Your task to perform on an android device: Play the last video I watched on Youtube Image 0: 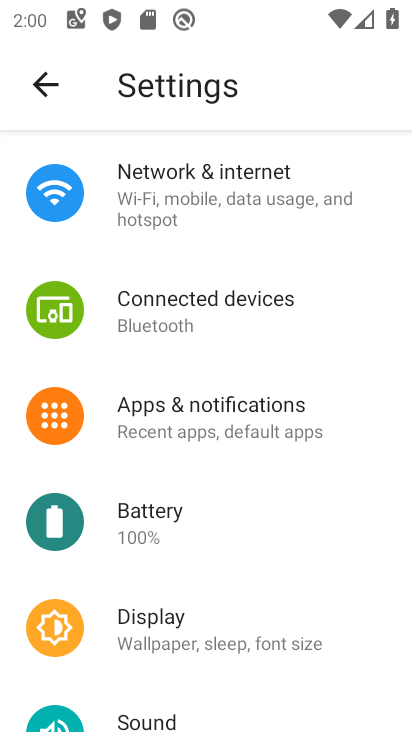
Step 0: press home button
Your task to perform on an android device: Play the last video I watched on Youtube Image 1: 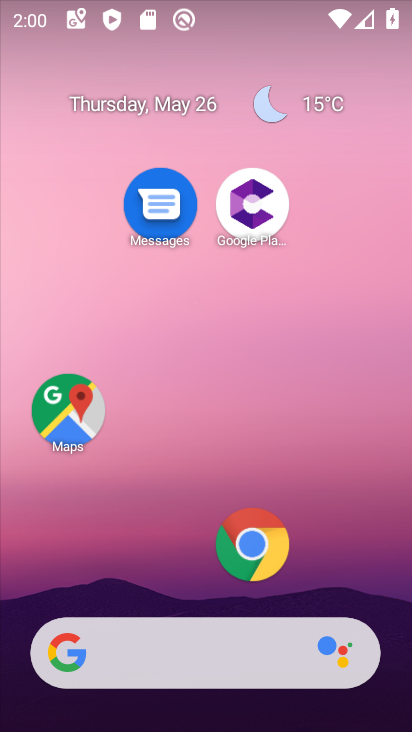
Step 1: drag from (153, 574) to (240, 38)
Your task to perform on an android device: Play the last video I watched on Youtube Image 2: 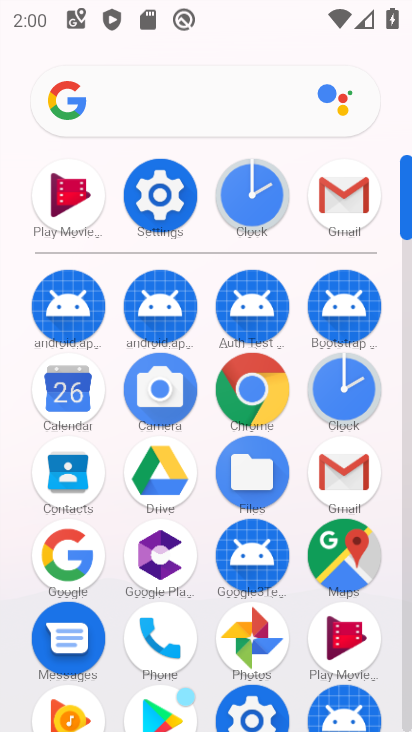
Step 2: drag from (208, 667) to (264, 252)
Your task to perform on an android device: Play the last video I watched on Youtube Image 3: 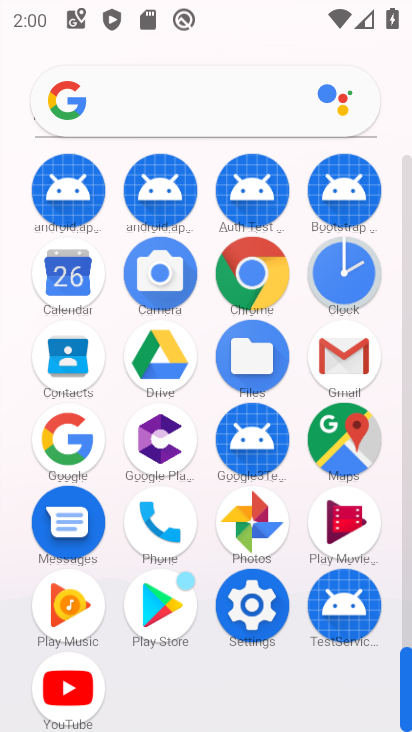
Step 3: click (60, 701)
Your task to perform on an android device: Play the last video I watched on Youtube Image 4: 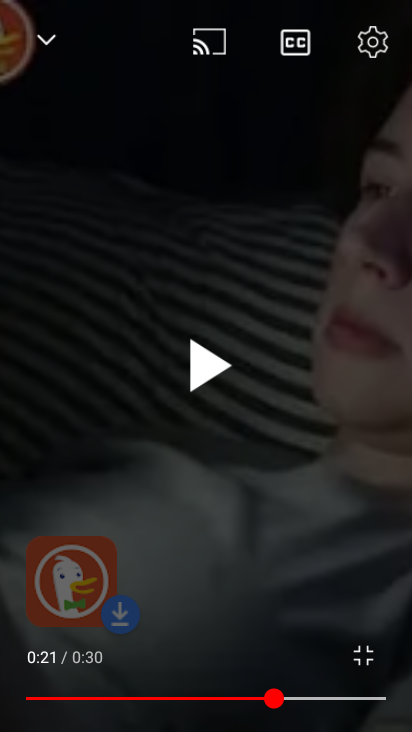
Step 4: click (195, 357)
Your task to perform on an android device: Play the last video I watched on Youtube Image 5: 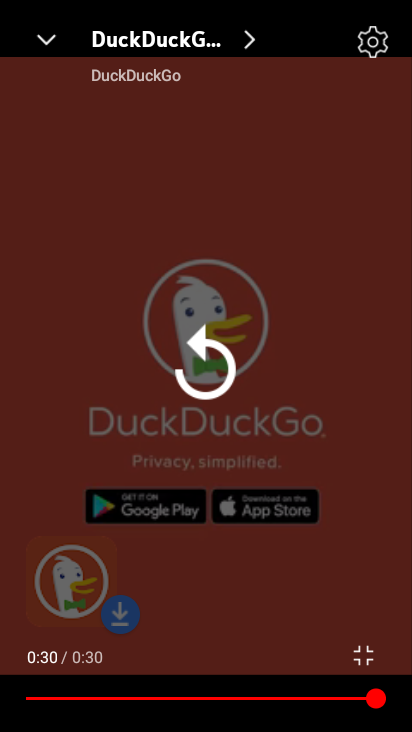
Step 5: task complete